Your task to perform on an android device: show emergency info Image 0: 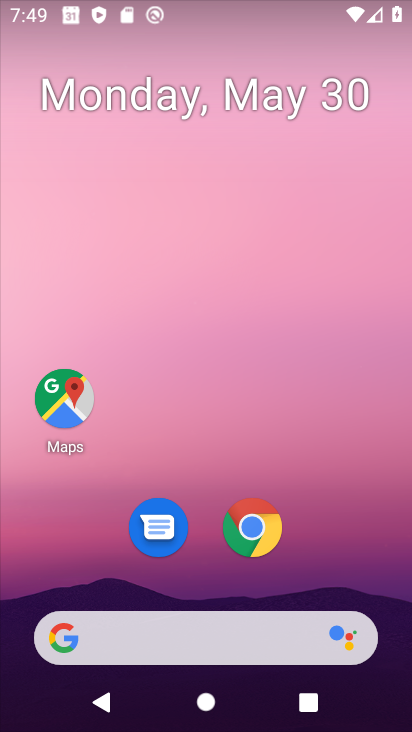
Step 0: drag from (217, 551) to (166, 20)
Your task to perform on an android device: show emergency info Image 1: 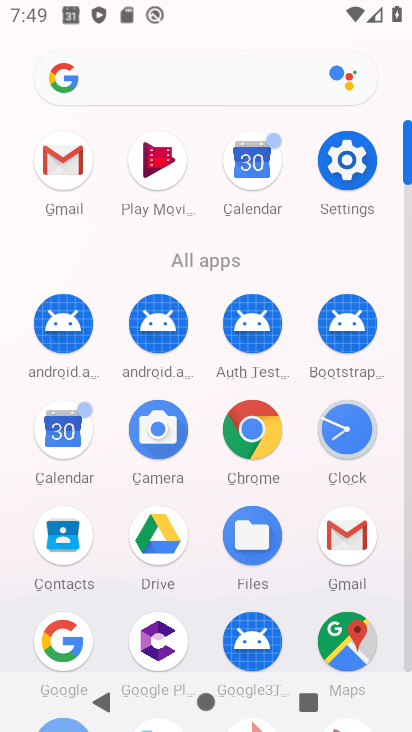
Step 1: click (336, 167)
Your task to perform on an android device: show emergency info Image 2: 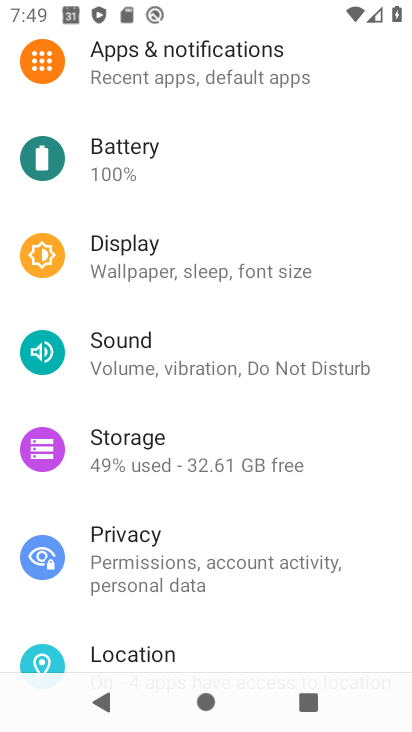
Step 2: drag from (166, 634) to (111, 115)
Your task to perform on an android device: show emergency info Image 3: 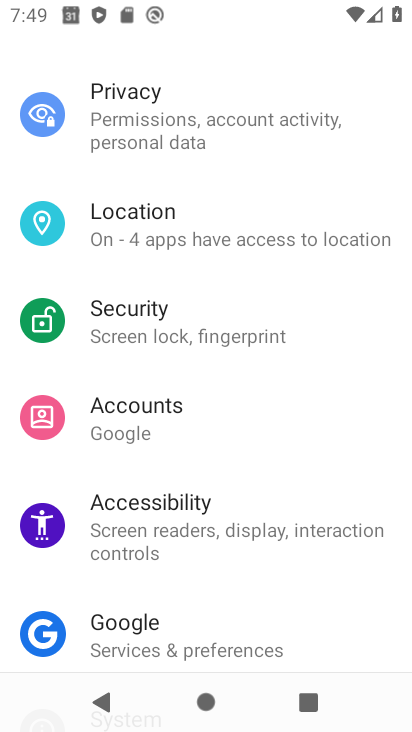
Step 3: drag from (131, 511) to (147, 216)
Your task to perform on an android device: show emergency info Image 4: 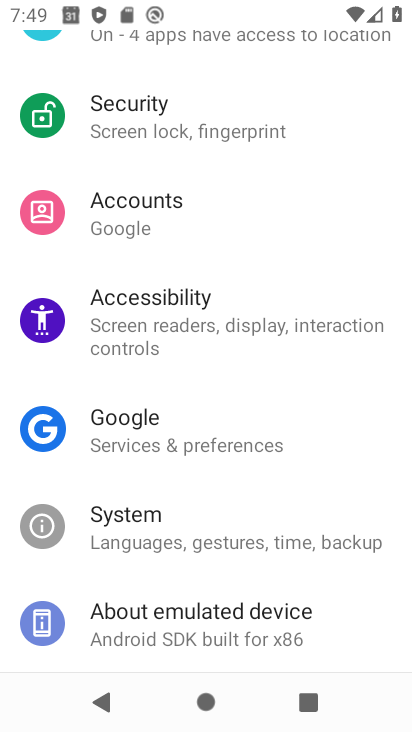
Step 4: click (172, 602)
Your task to perform on an android device: show emergency info Image 5: 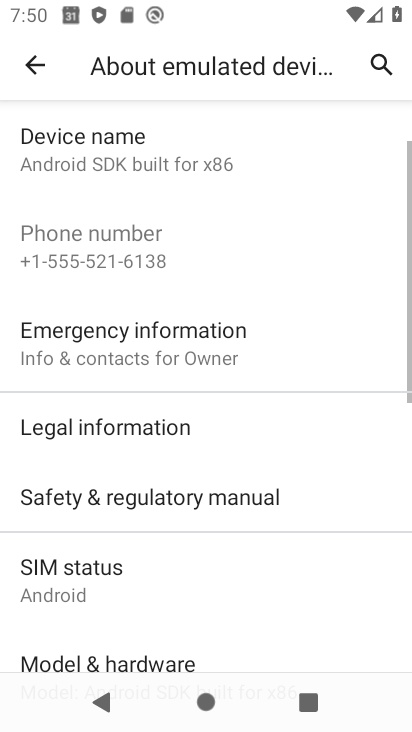
Step 5: click (193, 346)
Your task to perform on an android device: show emergency info Image 6: 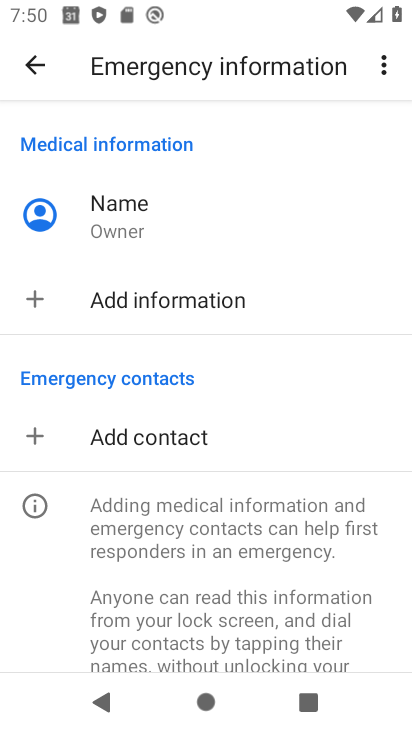
Step 6: task complete